Your task to perform on an android device: turn off picture-in-picture Image 0: 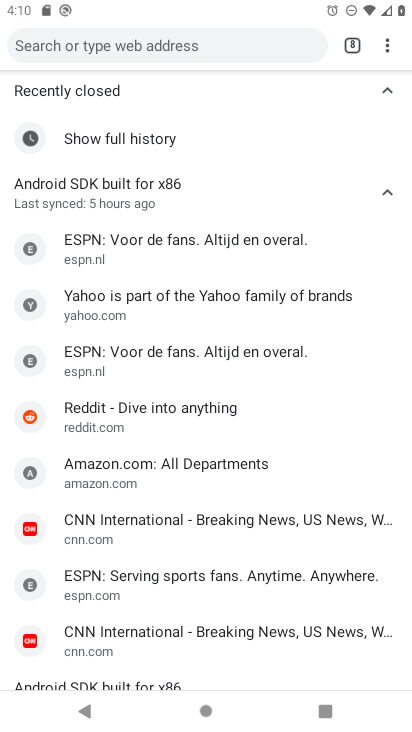
Step 0: press home button
Your task to perform on an android device: turn off picture-in-picture Image 1: 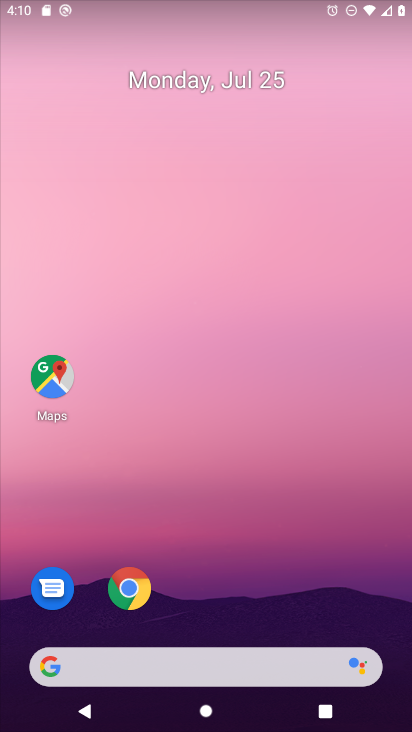
Step 1: drag from (228, 728) to (243, 278)
Your task to perform on an android device: turn off picture-in-picture Image 2: 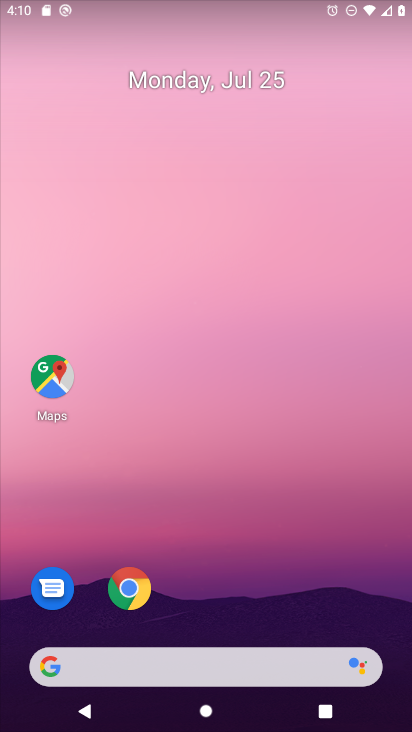
Step 2: drag from (226, 698) to (216, 64)
Your task to perform on an android device: turn off picture-in-picture Image 3: 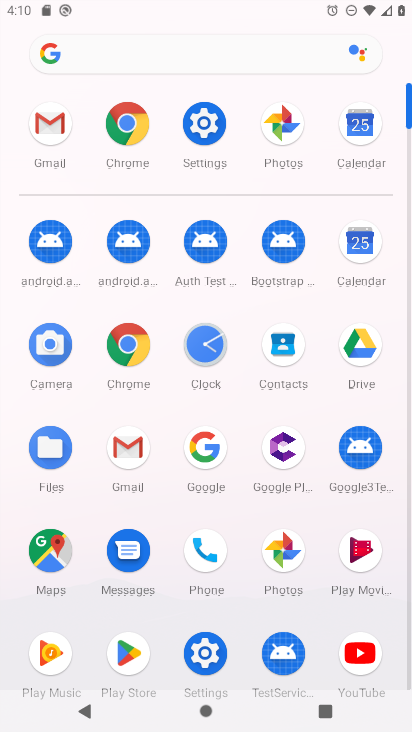
Step 3: click (202, 126)
Your task to perform on an android device: turn off picture-in-picture Image 4: 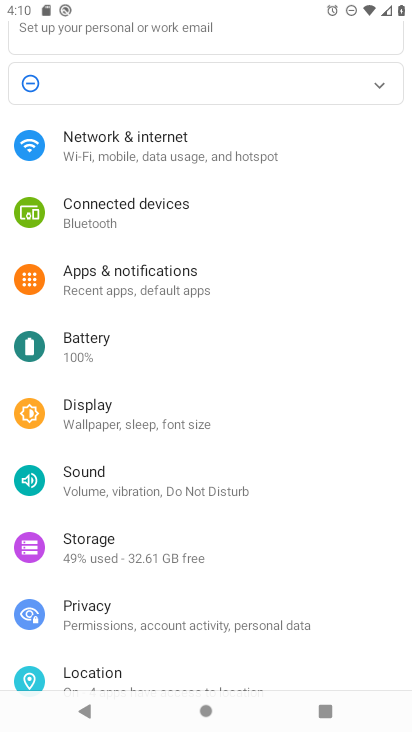
Step 4: click (133, 282)
Your task to perform on an android device: turn off picture-in-picture Image 5: 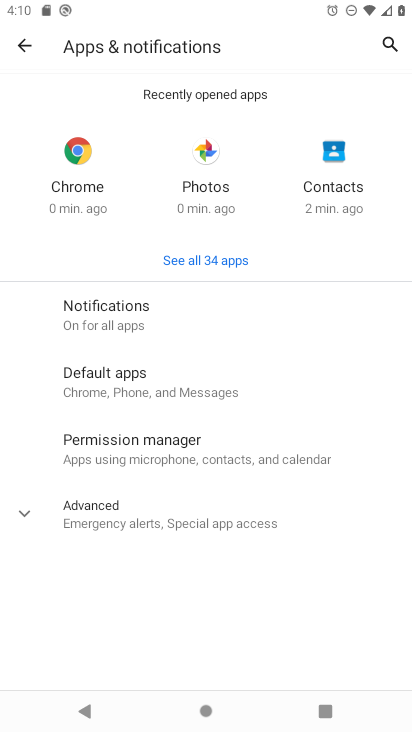
Step 5: click (99, 514)
Your task to perform on an android device: turn off picture-in-picture Image 6: 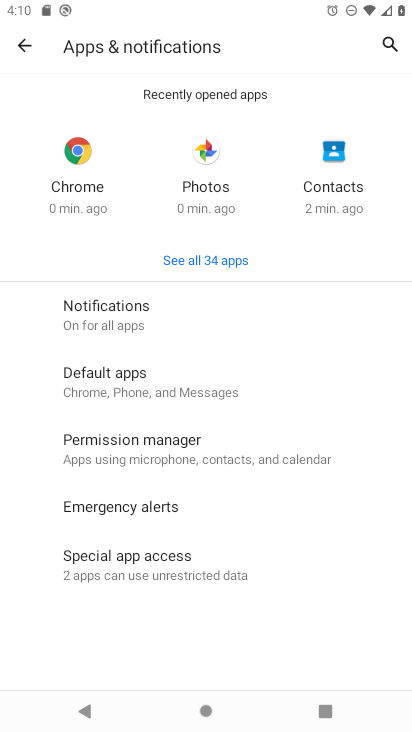
Step 6: click (139, 553)
Your task to perform on an android device: turn off picture-in-picture Image 7: 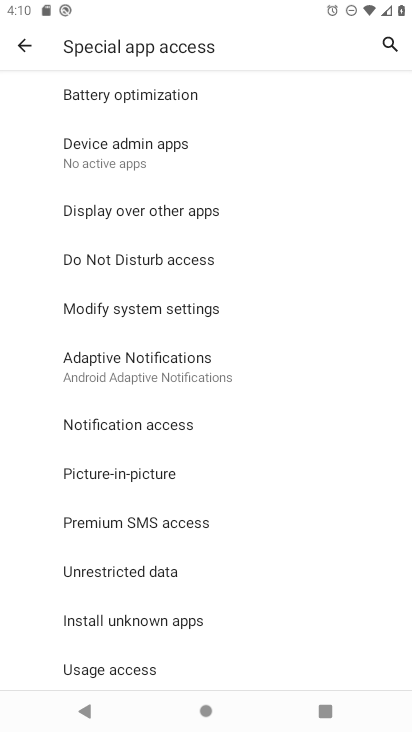
Step 7: click (124, 471)
Your task to perform on an android device: turn off picture-in-picture Image 8: 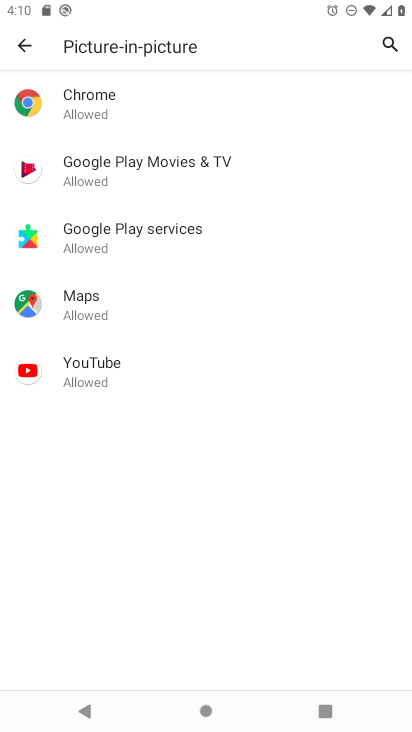
Step 8: click (92, 375)
Your task to perform on an android device: turn off picture-in-picture Image 9: 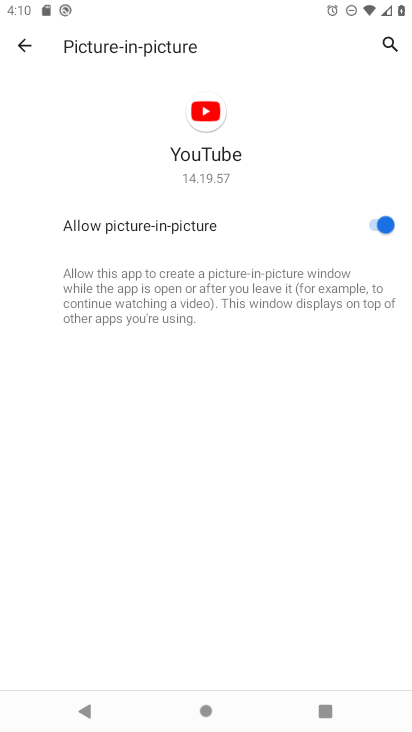
Step 9: click (377, 221)
Your task to perform on an android device: turn off picture-in-picture Image 10: 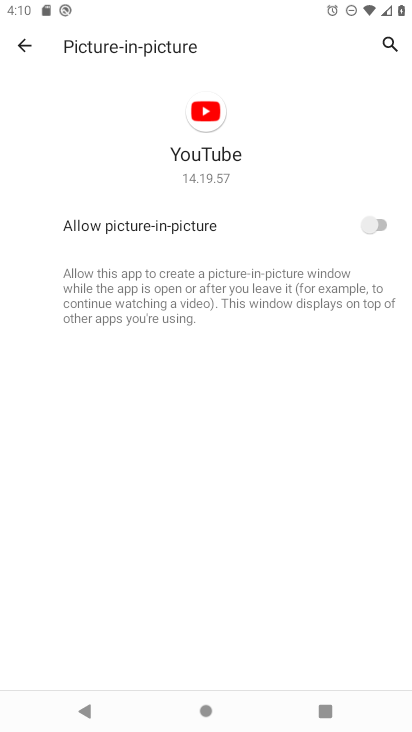
Step 10: task complete